Your task to perform on an android device: open app "McDonald's" (install if not already installed) Image 0: 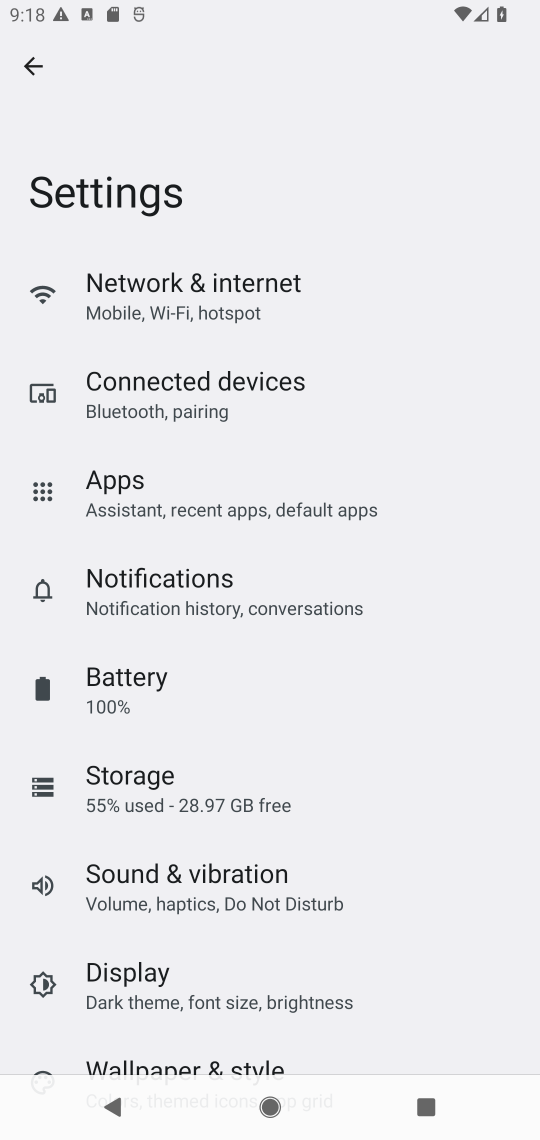
Step 0: press home button
Your task to perform on an android device: open app "McDonald's" (install if not already installed) Image 1: 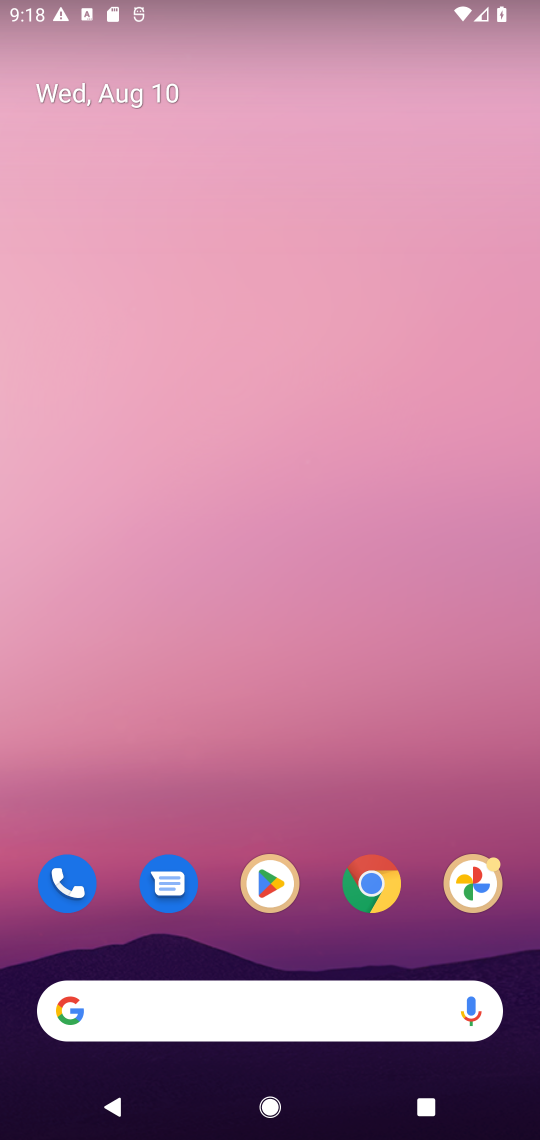
Step 1: drag from (313, 785) to (294, 82)
Your task to perform on an android device: open app "McDonald's" (install if not already installed) Image 2: 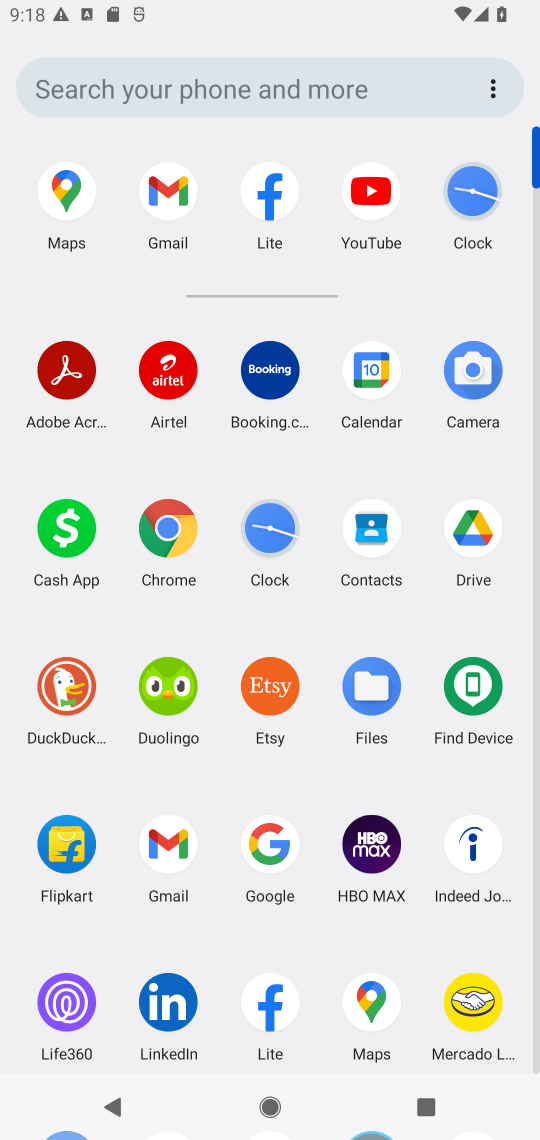
Step 2: drag from (329, 935) to (325, 485)
Your task to perform on an android device: open app "McDonald's" (install if not already installed) Image 3: 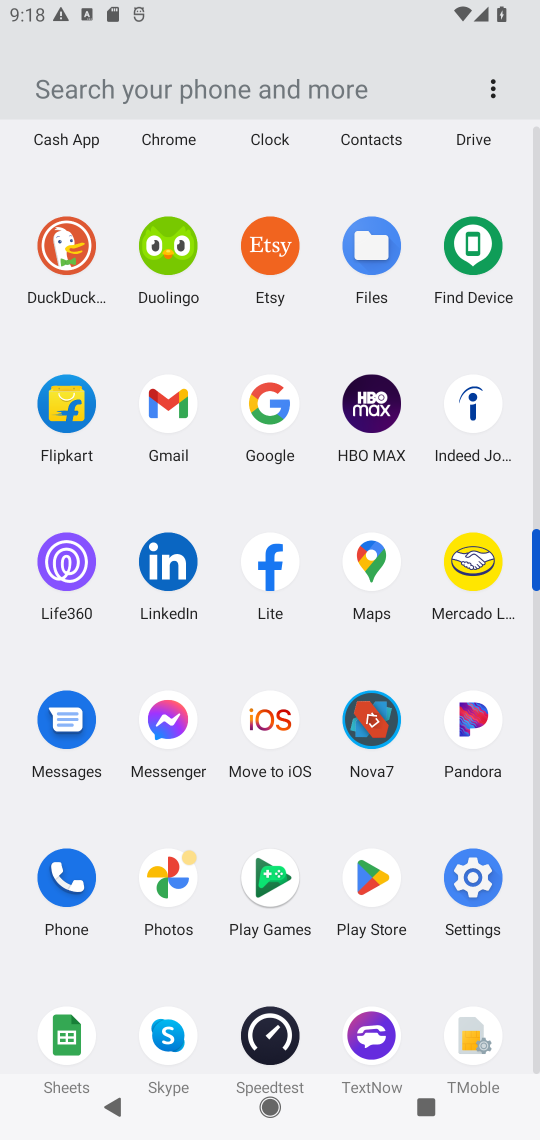
Step 3: click (374, 880)
Your task to perform on an android device: open app "McDonald's" (install if not already installed) Image 4: 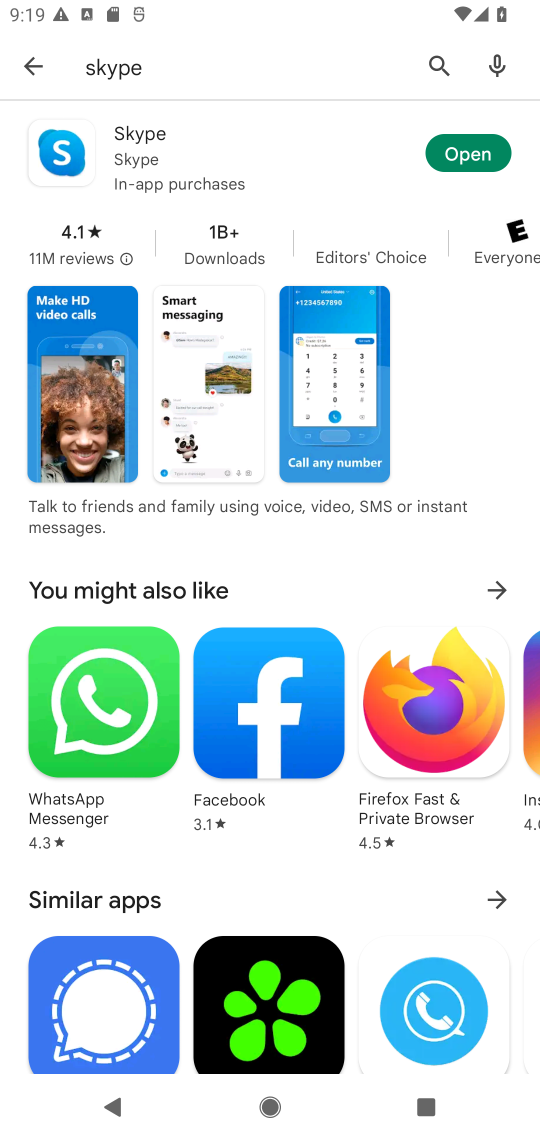
Step 4: click (441, 61)
Your task to perform on an android device: open app "McDonald's" (install if not already installed) Image 5: 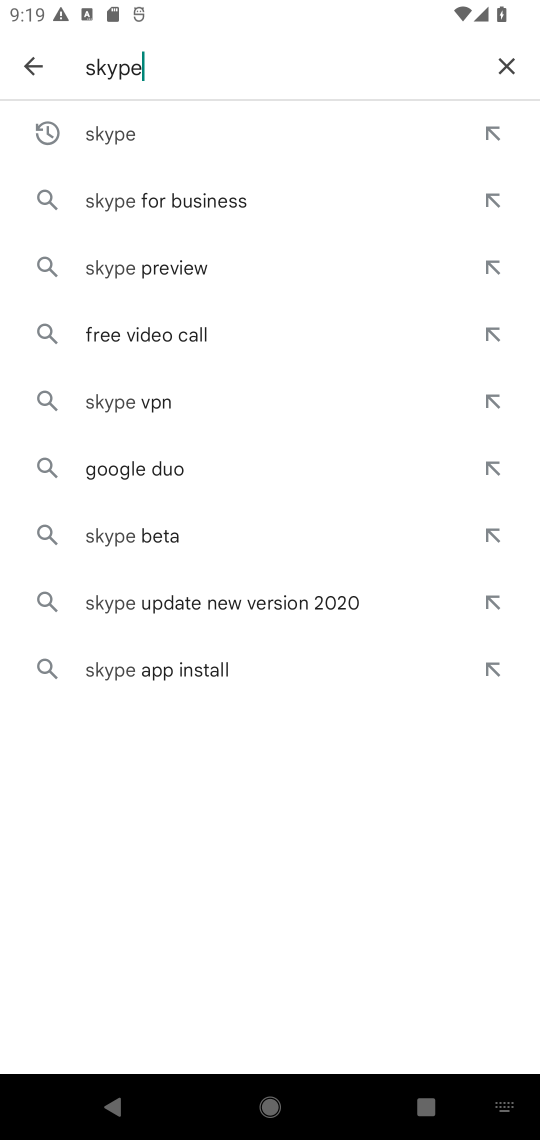
Step 5: click (507, 55)
Your task to perform on an android device: open app "McDonald's" (install if not already installed) Image 6: 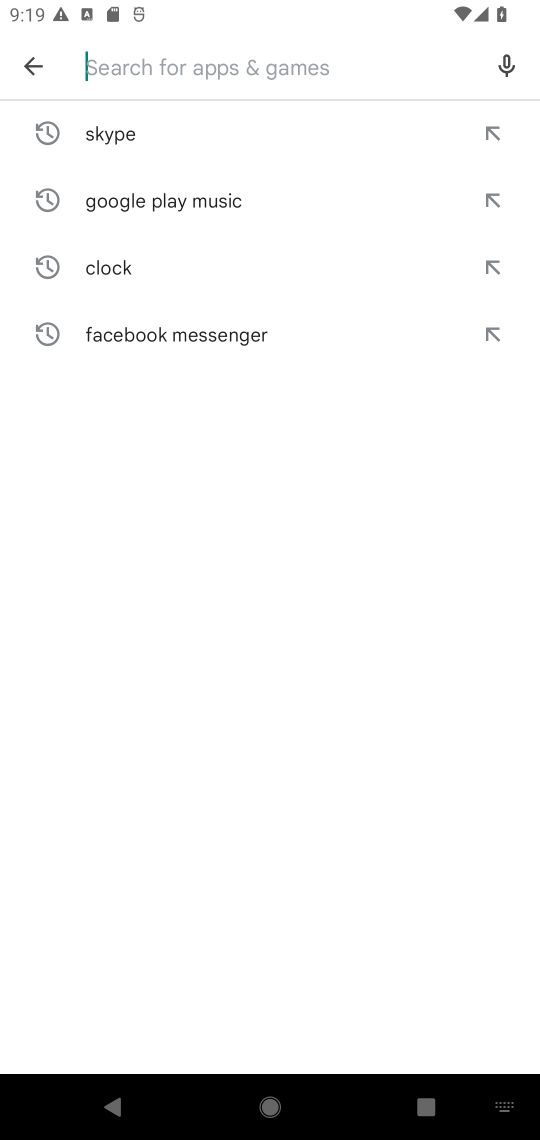
Step 6: type "McDonald's"
Your task to perform on an android device: open app "McDonald's" (install if not already installed) Image 7: 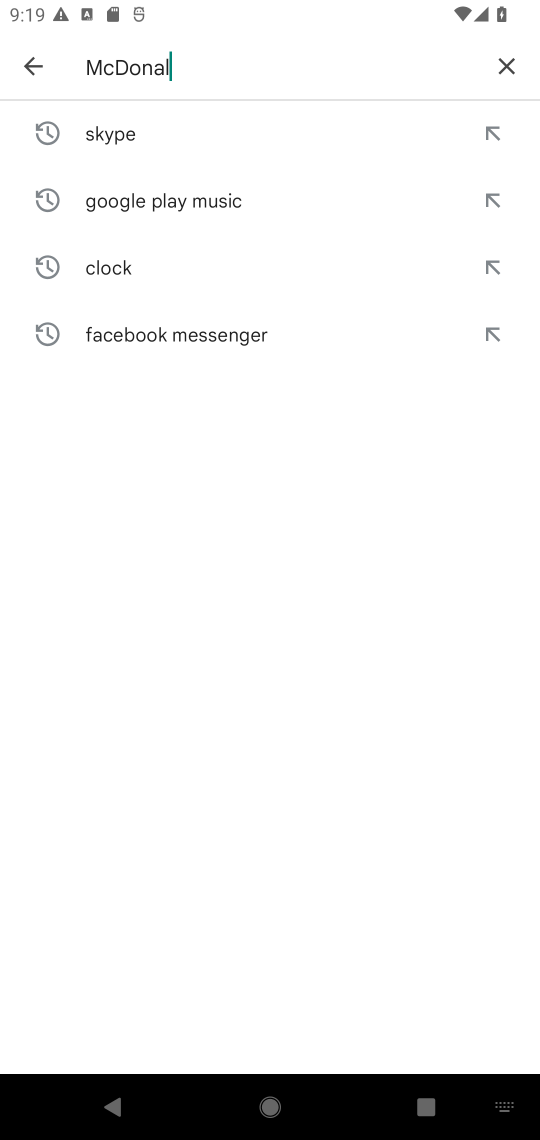
Step 7: type ""
Your task to perform on an android device: open app "McDonald's" (install if not already installed) Image 8: 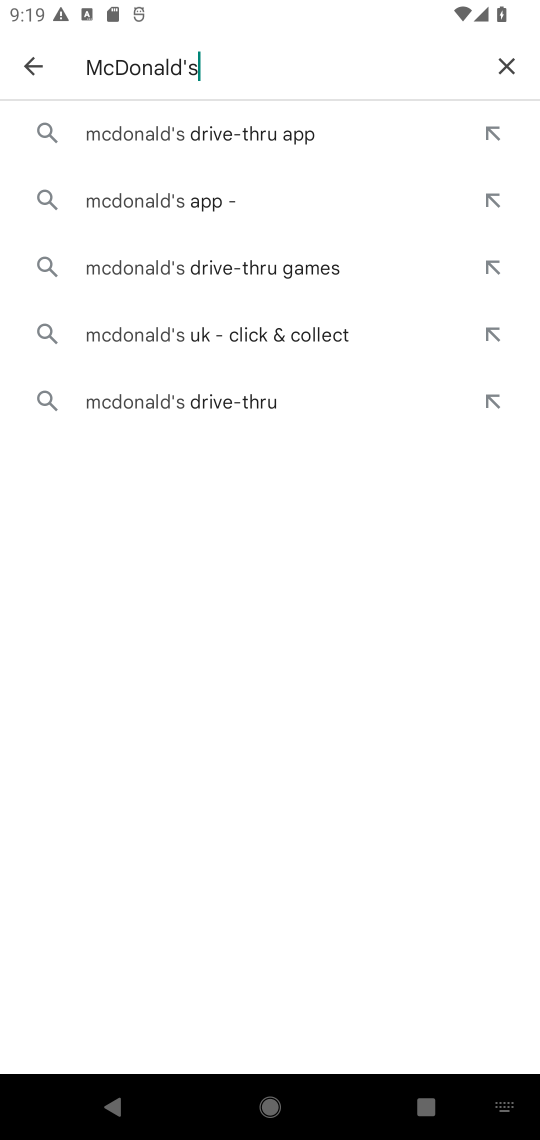
Step 8: click (181, 196)
Your task to perform on an android device: open app "McDonald's" (install if not already installed) Image 9: 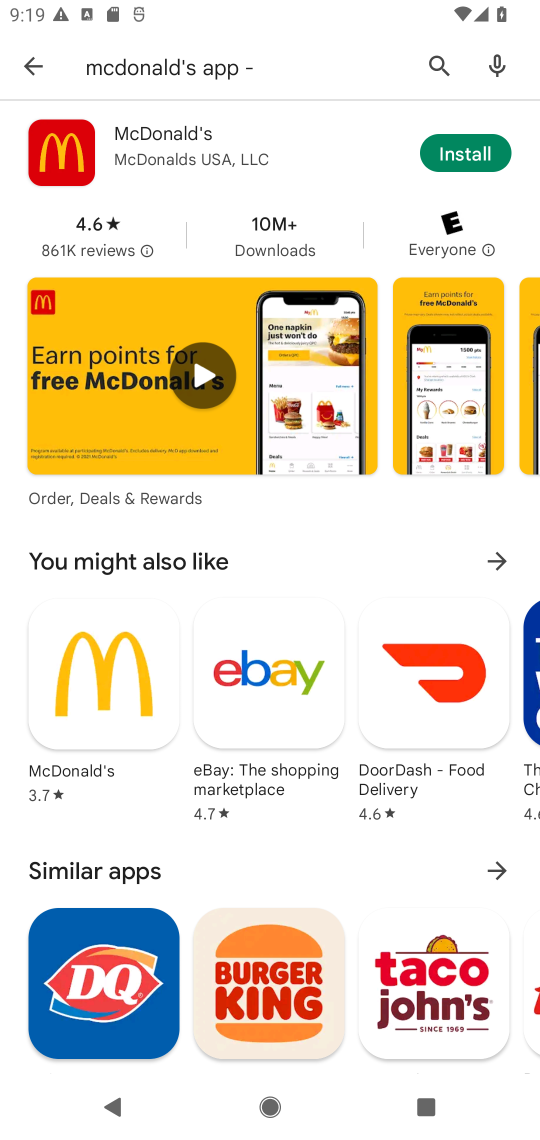
Step 9: click (488, 148)
Your task to perform on an android device: open app "McDonald's" (install if not already installed) Image 10: 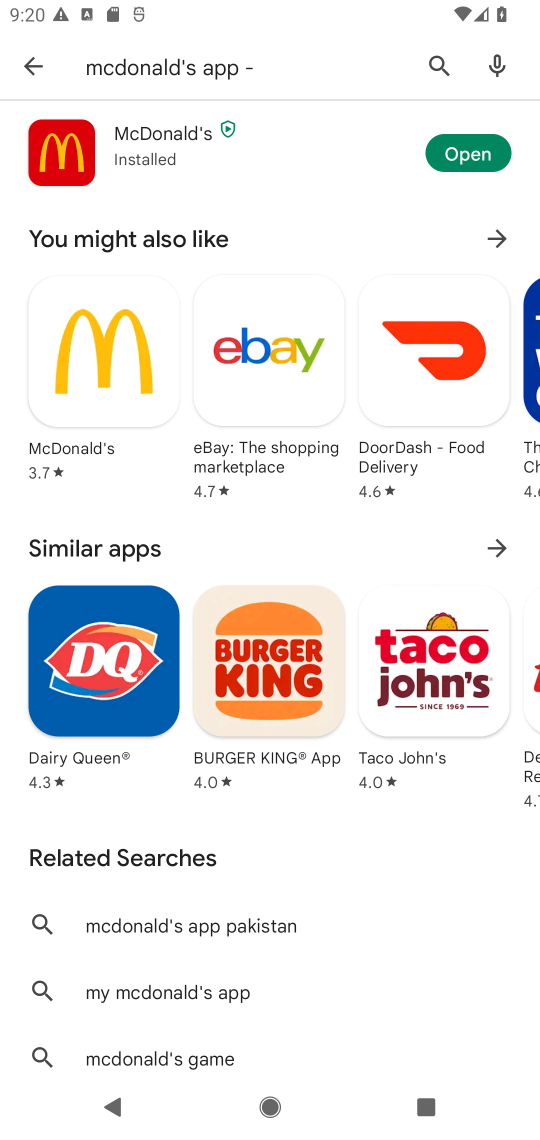
Step 10: click (463, 160)
Your task to perform on an android device: open app "McDonald's" (install if not already installed) Image 11: 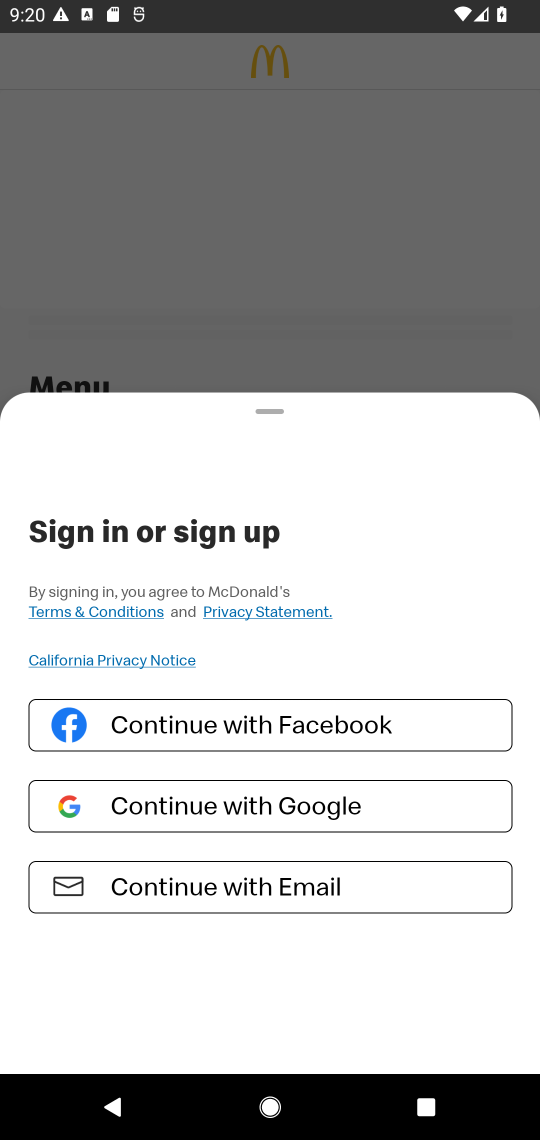
Step 11: task complete